Your task to perform on an android device: turn on location history Image 0: 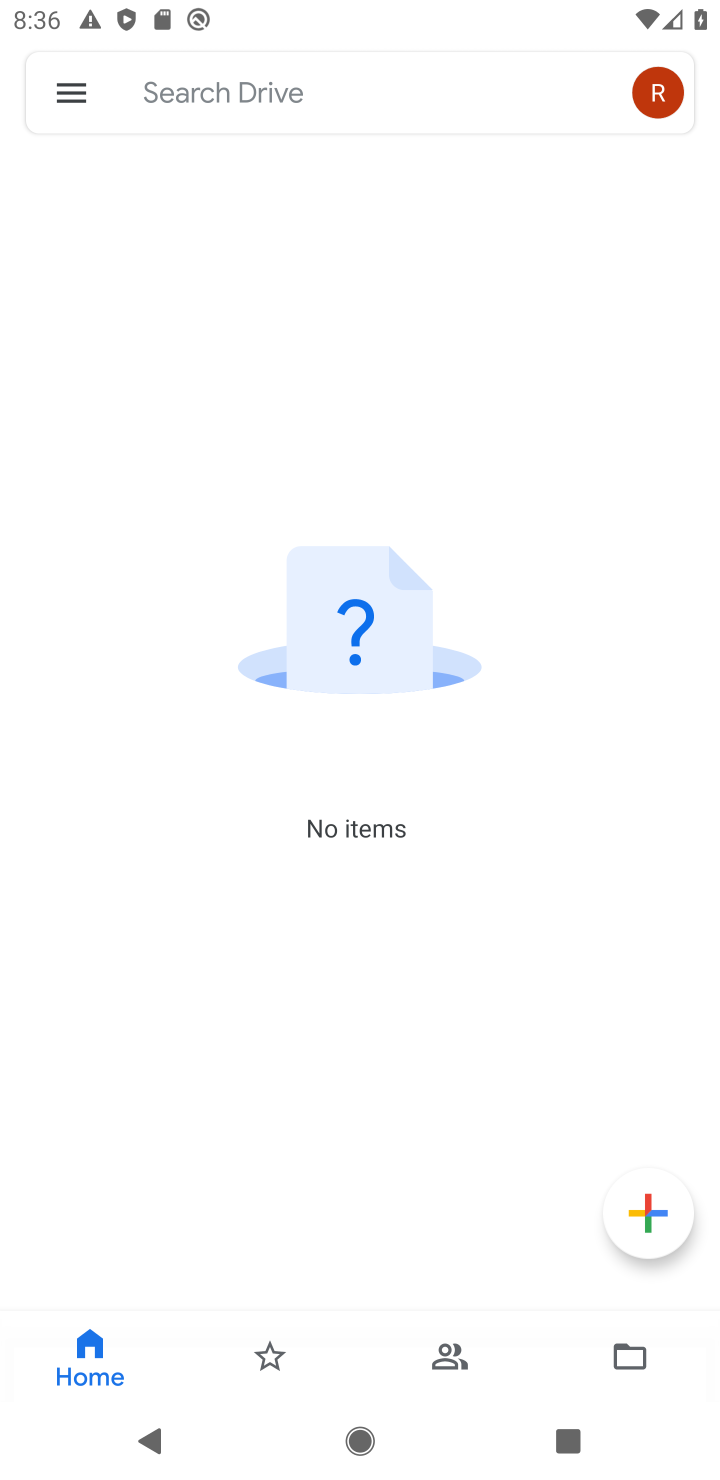
Step 0: press home button
Your task to perform on an android device: turn on location history Image 1: 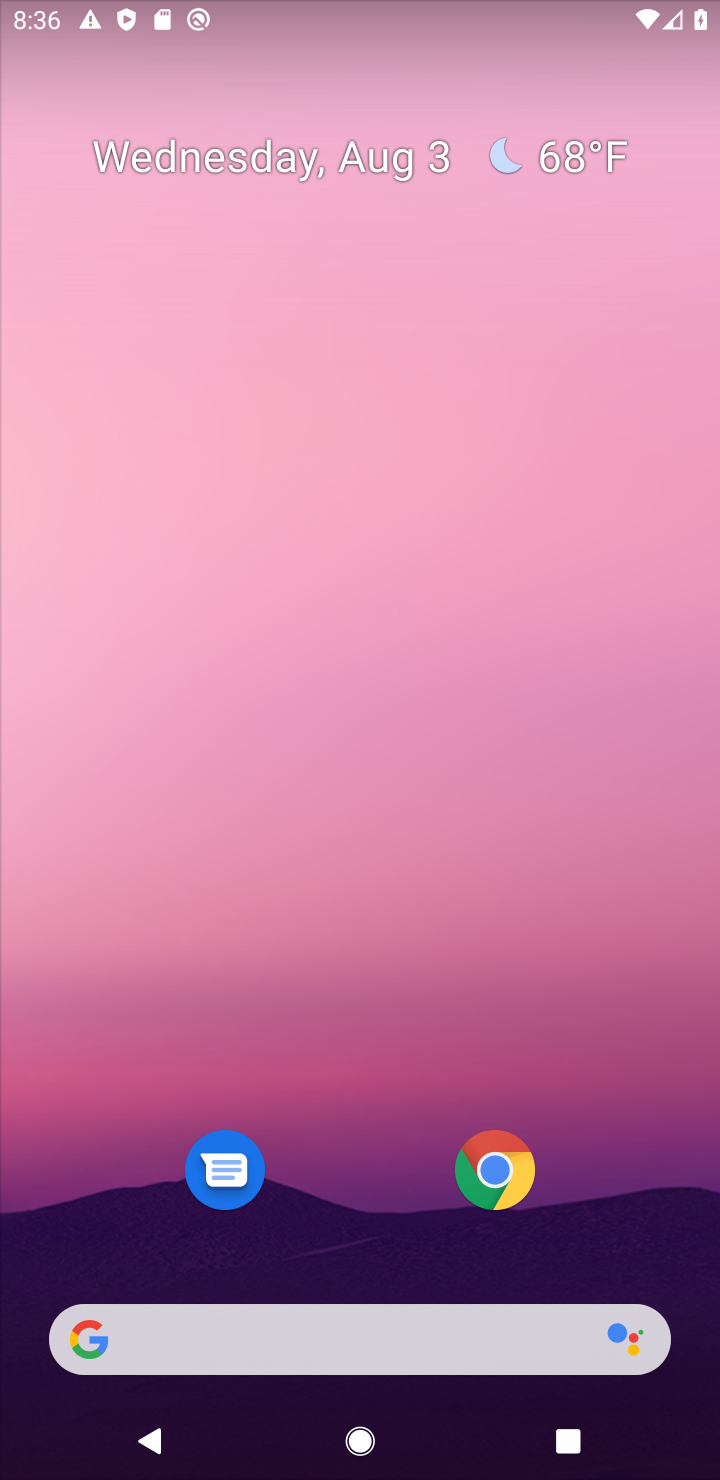
Step 1: drag from (636, 1230) to (544, 328)
Your task to perform on an android device: turn on location history Image 2: 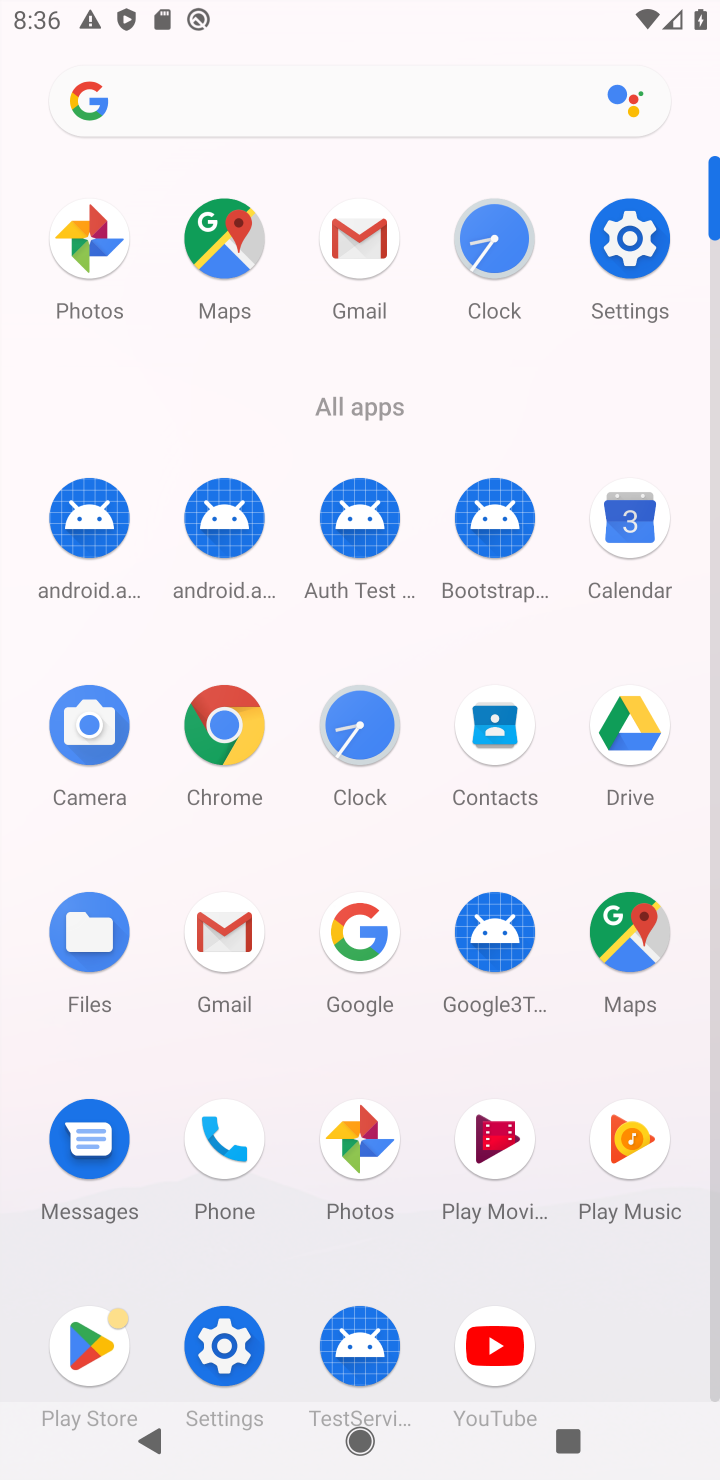
Step 2: click (629, 928)
Your task to perform on an android device: turn on location history Image 3: 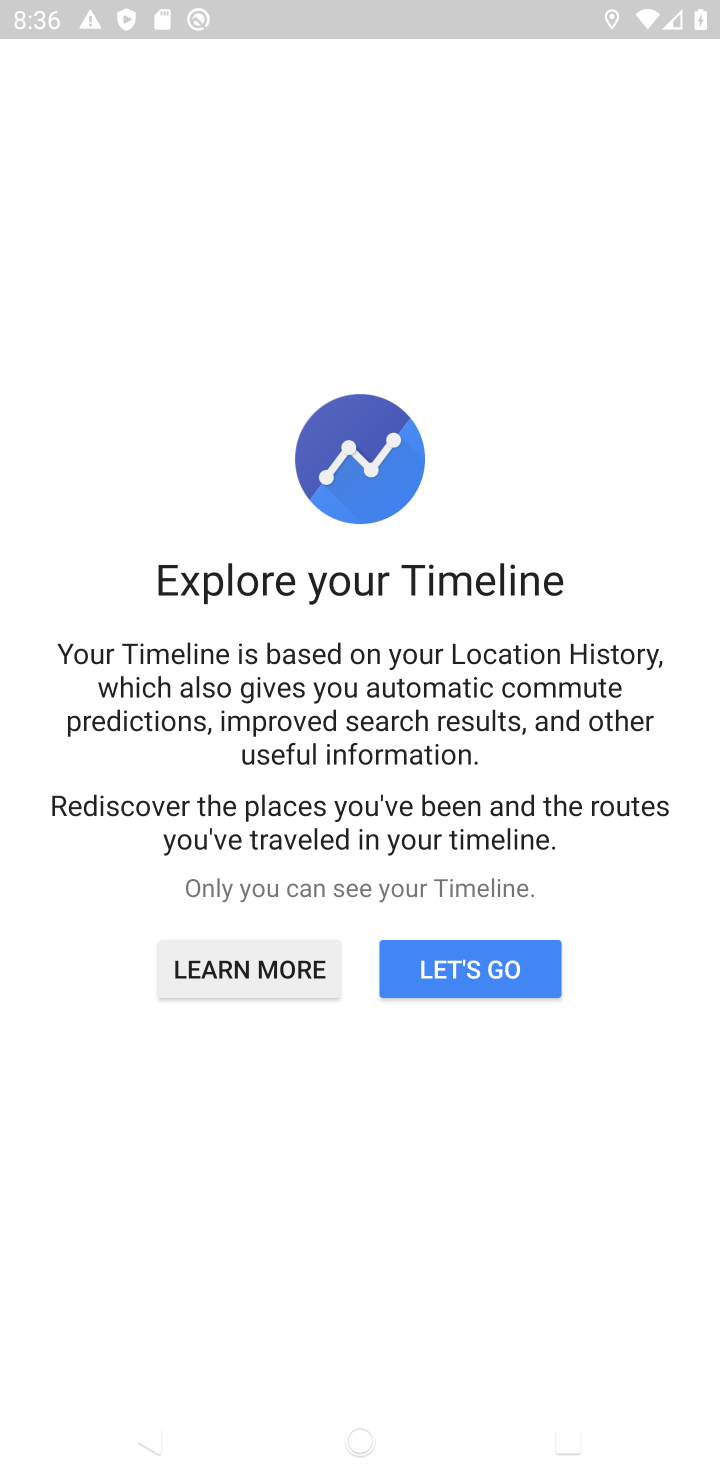
Step 3: press back button
Your task to perform on an android device: turn on location history Image 4: 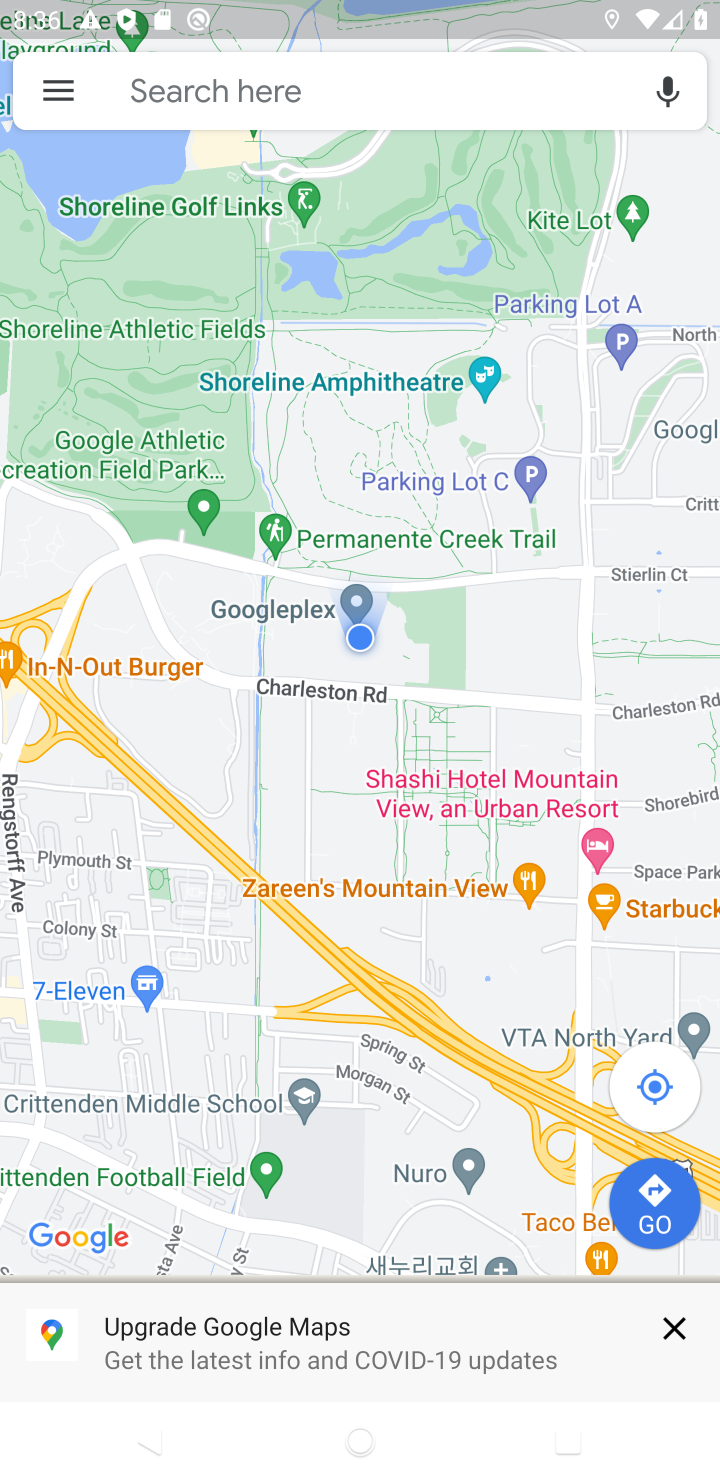
Step 4: click (53, 88)
Your task to perform on an android device: turn on location history Image 5: 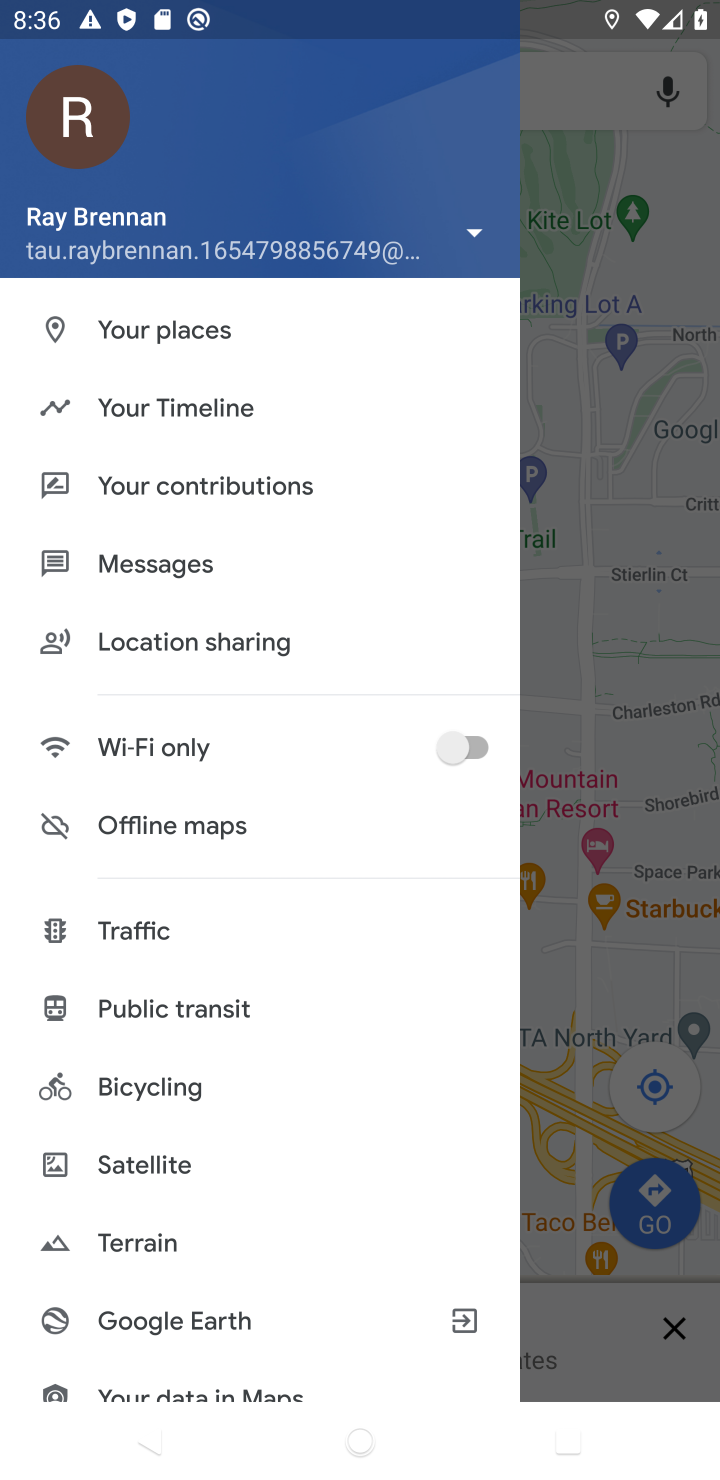
Step 5: drag from (306, 1352) to (323, 538)
Your task to perform on an android device: turn on location history Image 6: 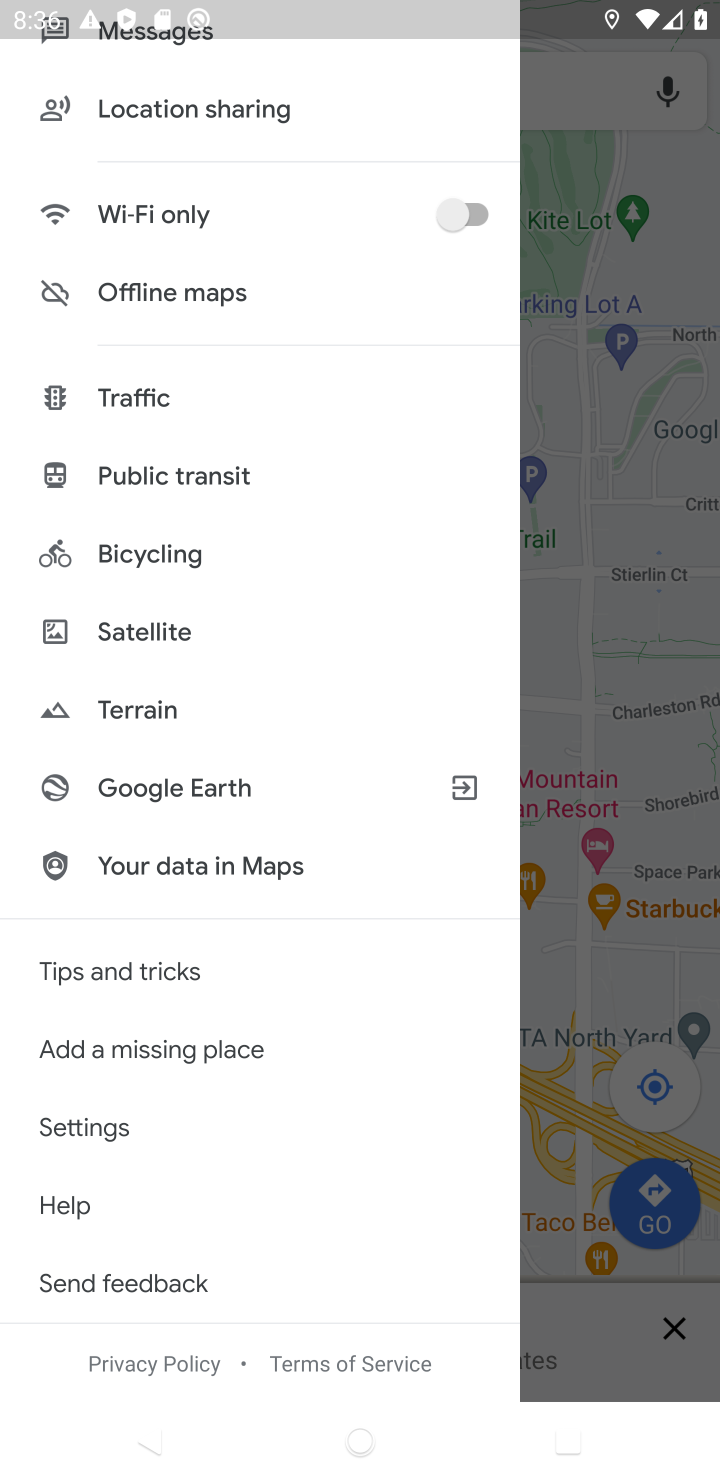
Step 6: click (84, 1120)
Your task to perform on an android device: turn on location history Image 7: 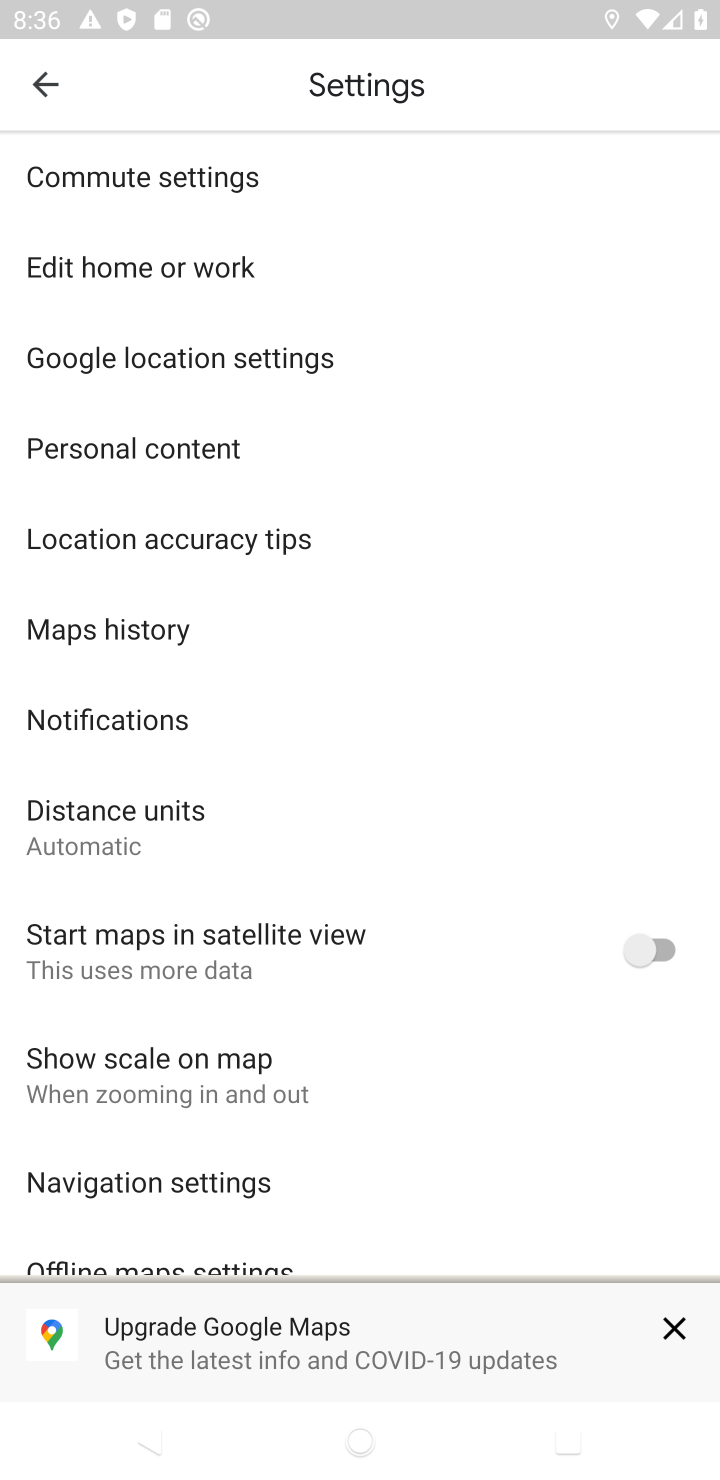
Step 7: click (177, 449)
Your task to perform on an android device: turn on location history Image 8: 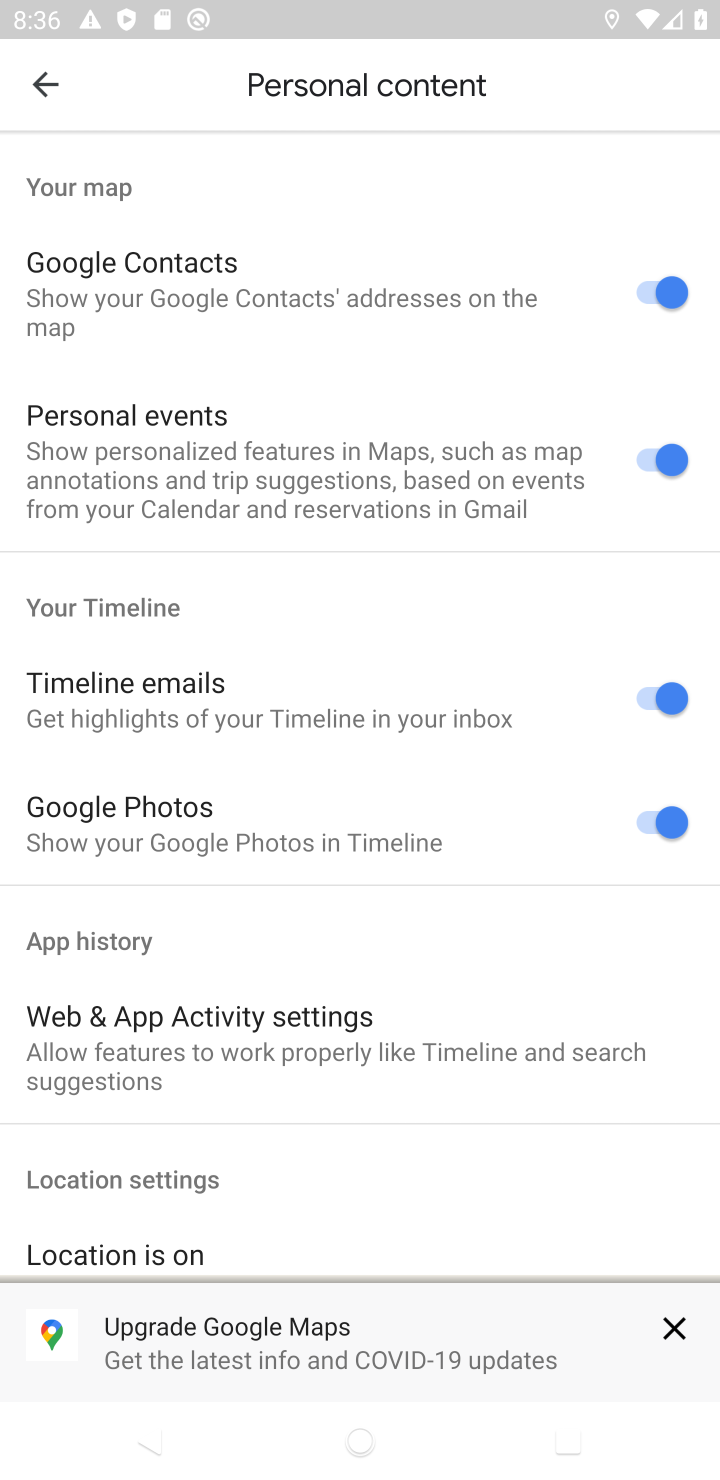
Step 8: drag from (491, 1156) to (401, 395)
Your task to perform on an android device: turn on location history Image 9: 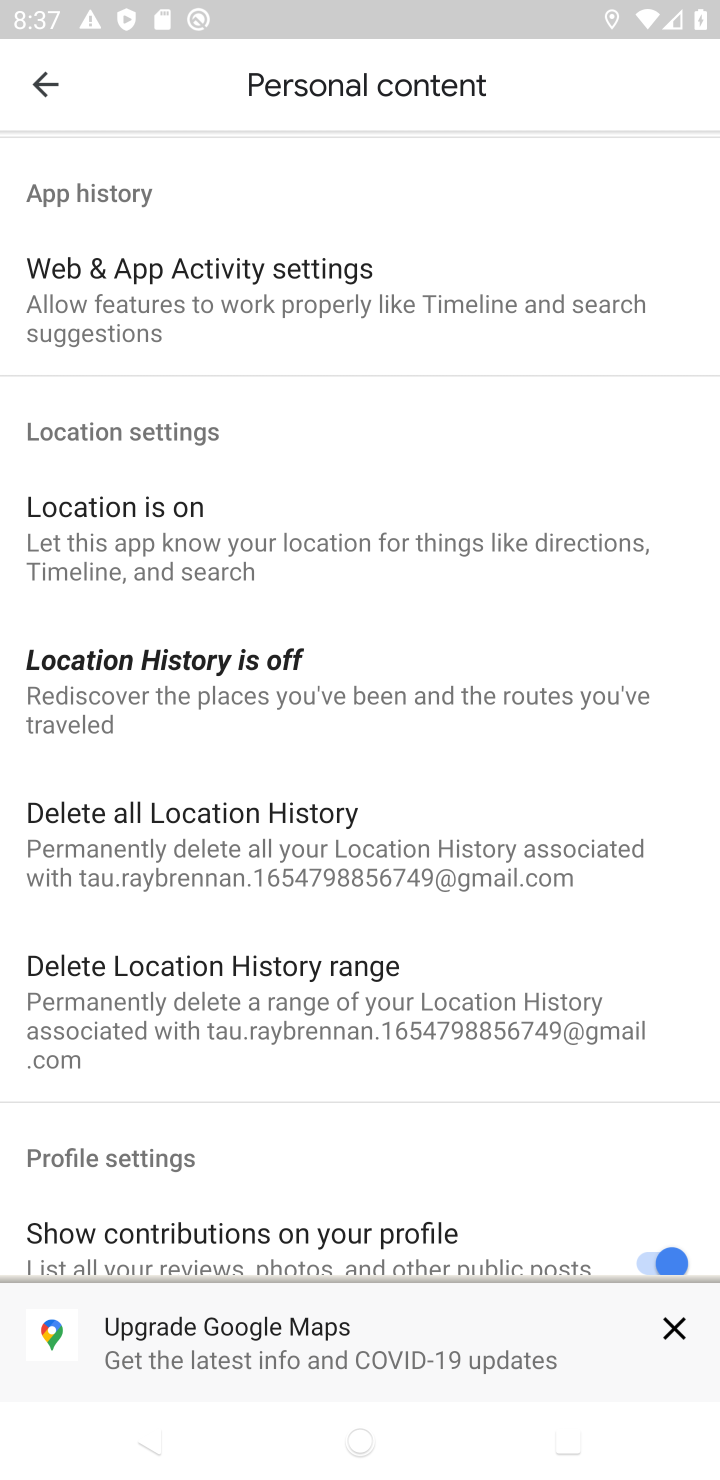
Step 9: click (130, 683)
Your task to perform on an android device: turn on location history Image 10: 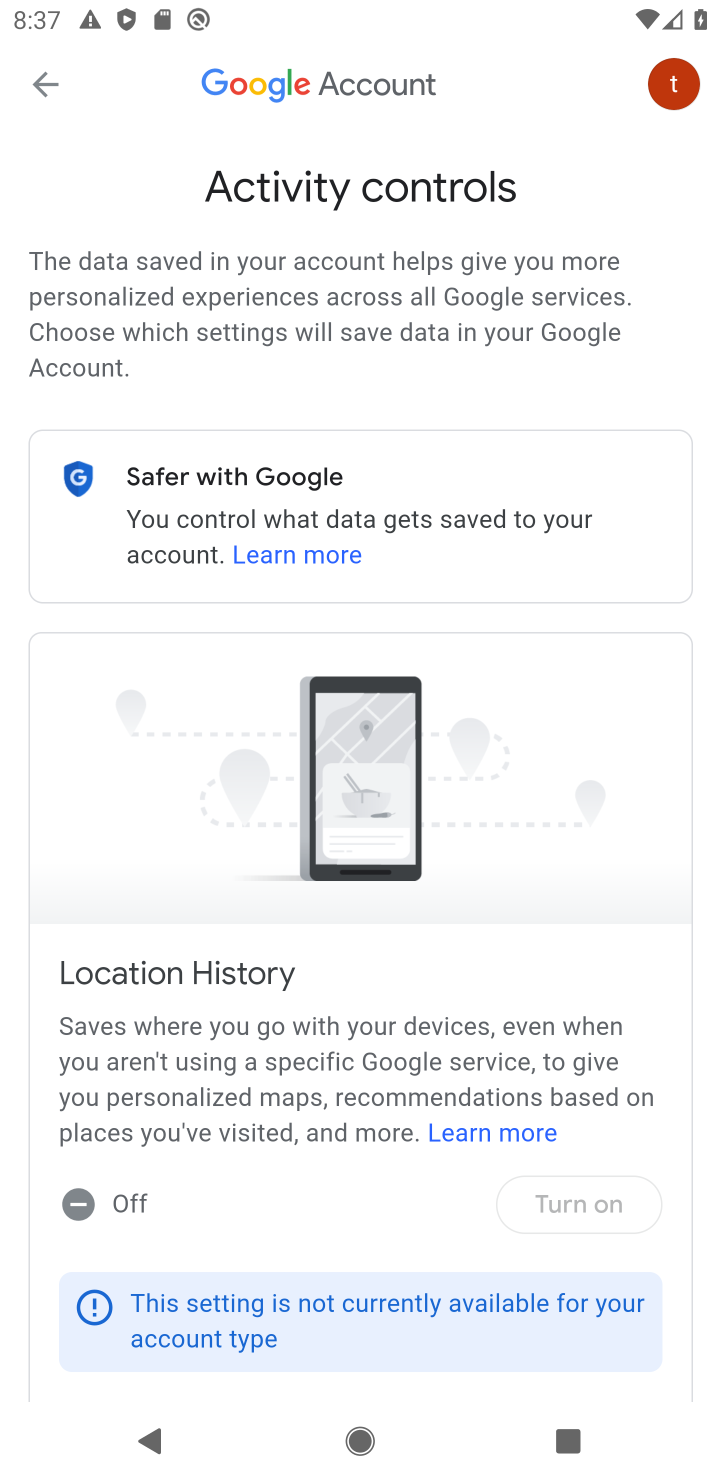
Step 10: click (579, 1201)
Your task to perform on an android device: turn on location history Image 11: 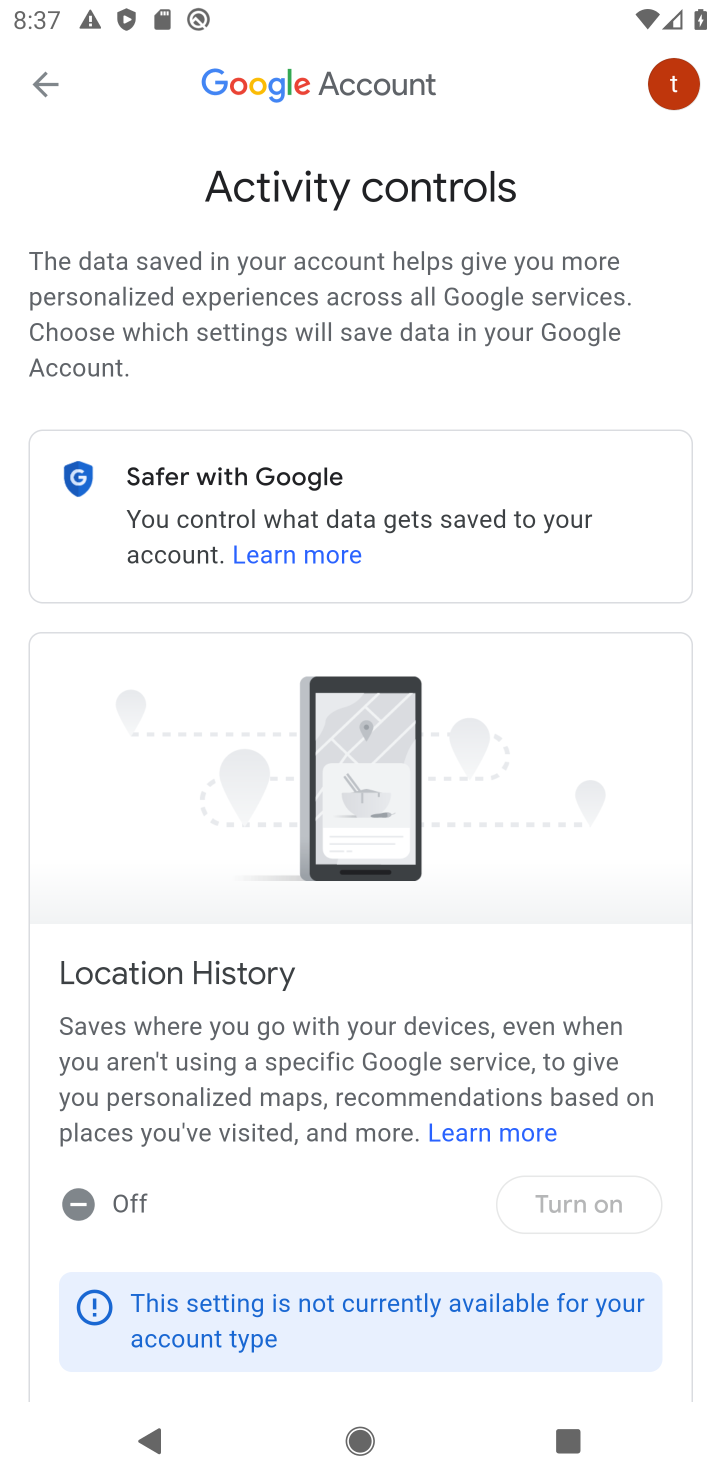
Step 11: task complete